Your task to perform on an android device: What's on my calendar today? Image 0: 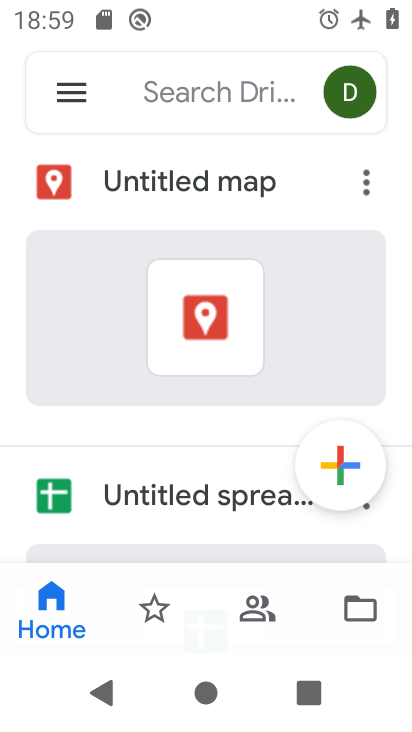
Step 0: press home button
Your task to perform on an android device: What's on my calendar today? Image 1: 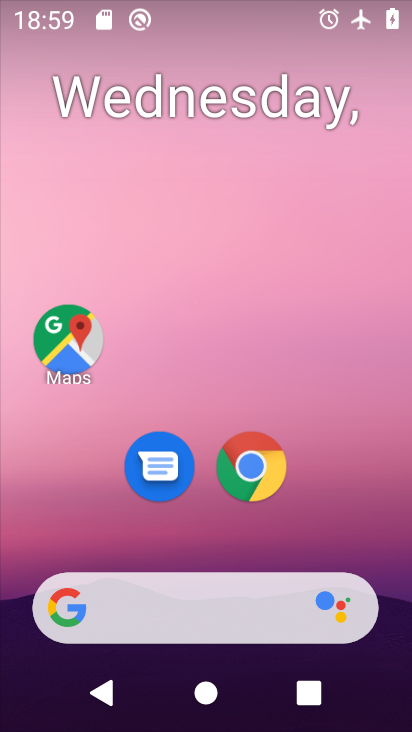
Step 1: drag from (350, 499) to (253, 113)
Your task to perform on an android device: What's on my calendar today? Image 2: 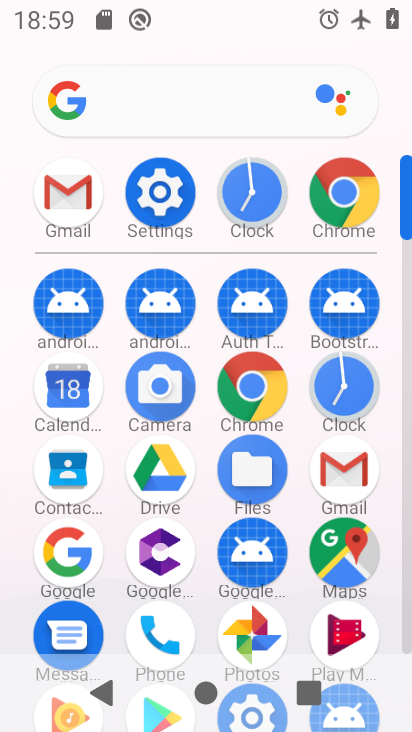
Step 2: click (62, 389)
Your task to perform on an android device: What's on my calendar today? Image 3: 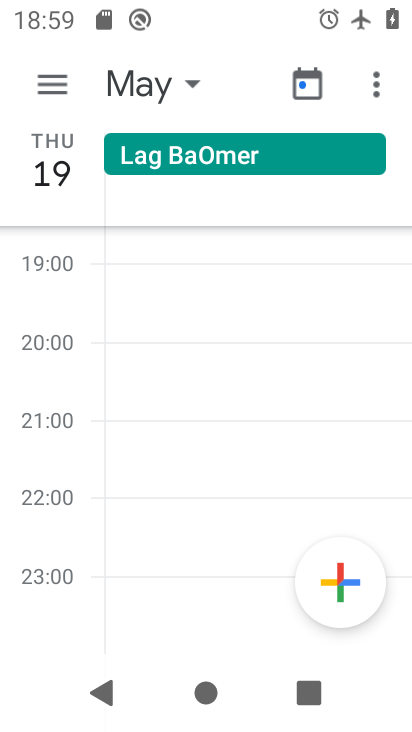
Step 3: click (189, 81)
Your task to perform on an android device: What's on my calendar today? Image 4: 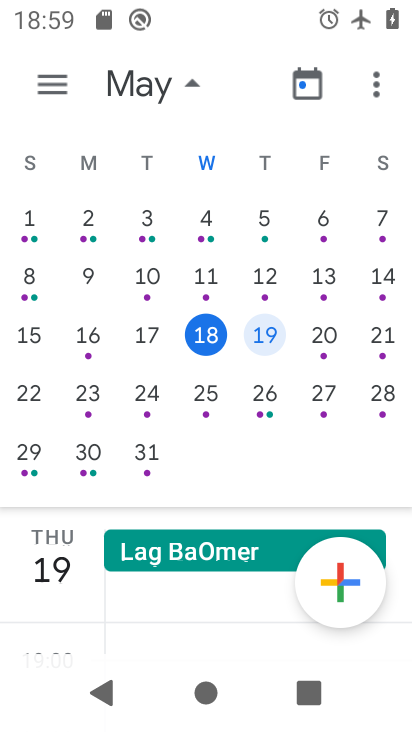
Step 4: click (199, 331)
Your task to perform on an android device: What's on my calendar today? Image 5: 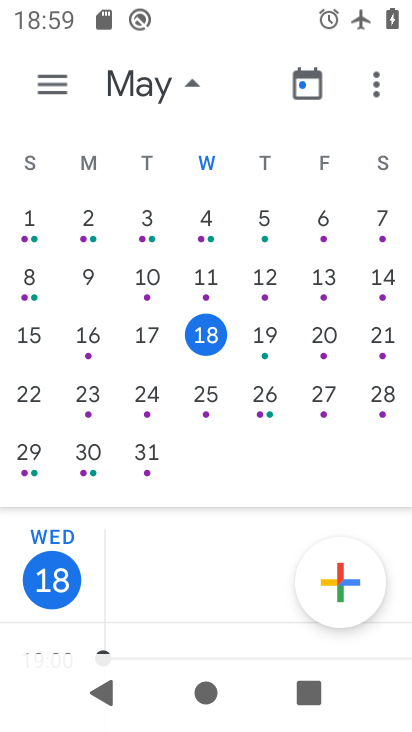
Step 5: task complete